Your task to perform on an android device: turn on data saver in the chrome app Image 0: 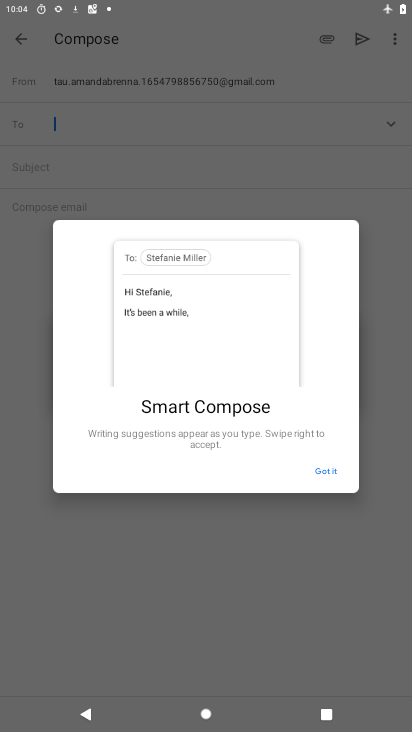
Step 0: press home button
Your task to perform on an android device: turn on data saver in the chrome app Image 1: 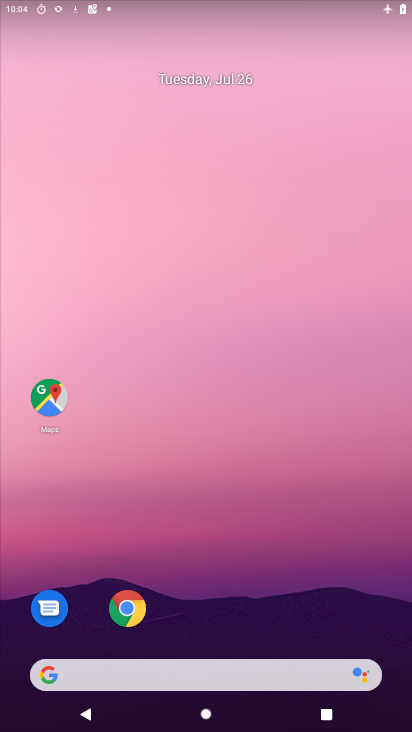
Step 1: click (140, 606)
Your task to perform on an android device: turn on data saver in the chrome app Image 2: 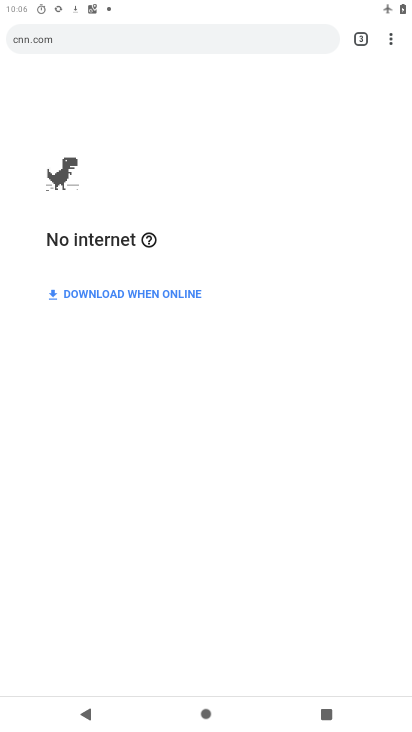
Step 2: click (388, 39)
Your task to perform on an android device: turn on data saver in the chrome app Image 3: 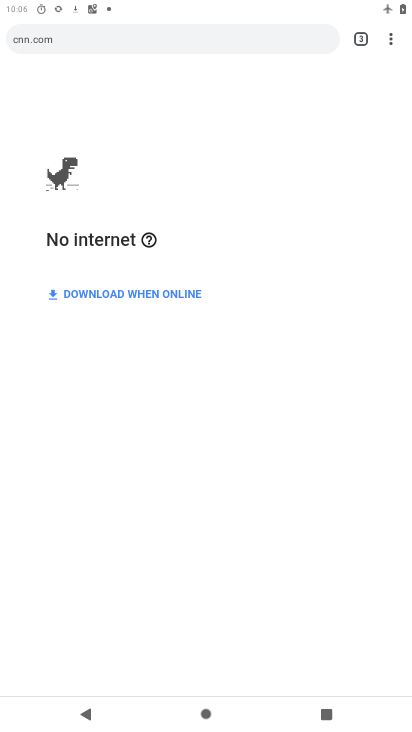
Step 3: drag from (388, 46) to (256, 436)
Your task to perform on an android device: turn on data saver in the chrome app Image 4: 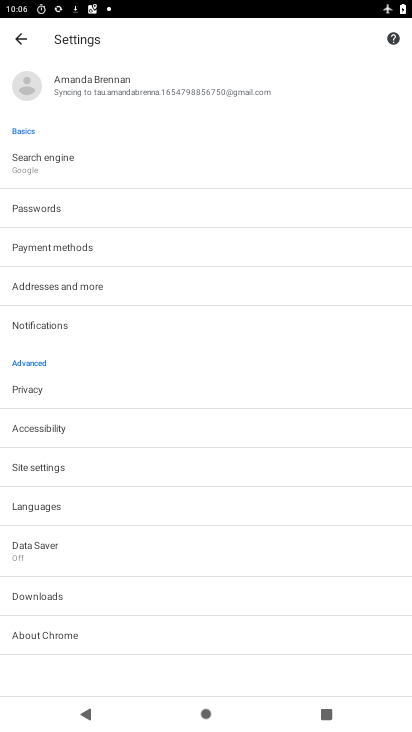
Step 4: click (36, 549)
Your task to perform on an android device: turn on data saver in the chrome app Image 5: 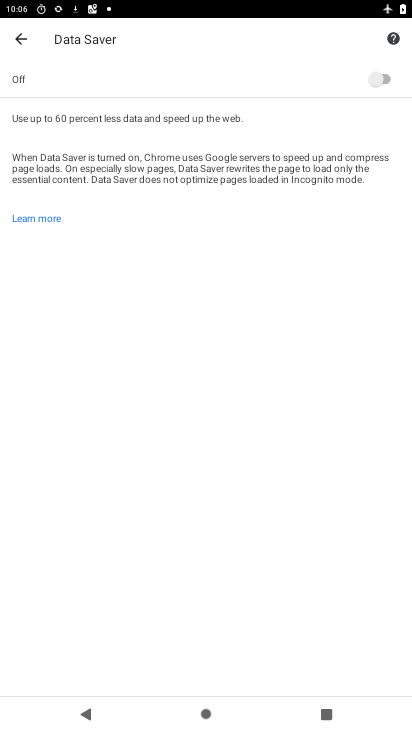
Step 5: click (379, 72)
Your task to perform on an android device: turn on data saver in the chrome app Image 6: 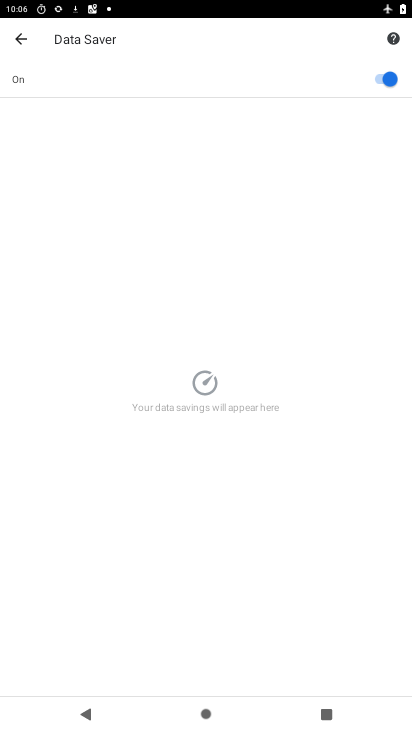
Step 6: task complete